Your task to perform on an android device: set the stopwatch Image 0: 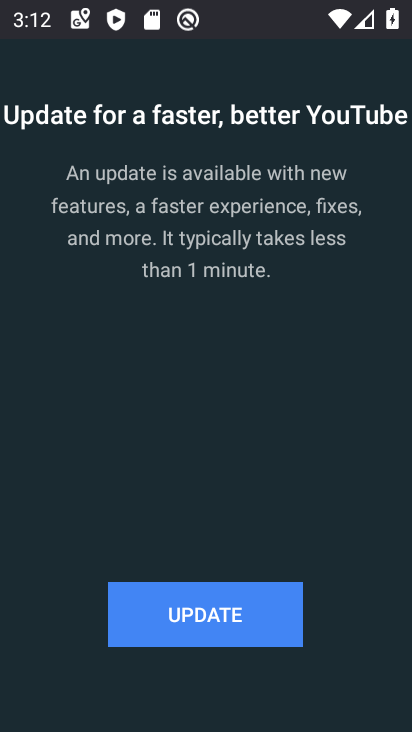
Step 0: press home button
Your task to perform on an android device: set the stopwatch Image 1: 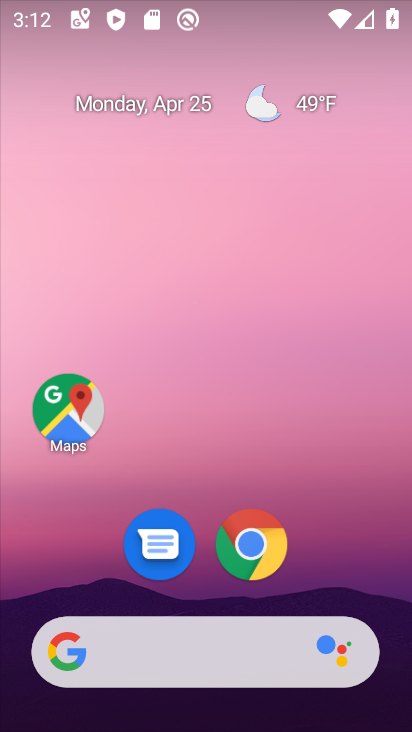
Step 1: drag from (206, 465) to (231, 22)
Your task to perform on an android device: set the stopwatch Image 2: 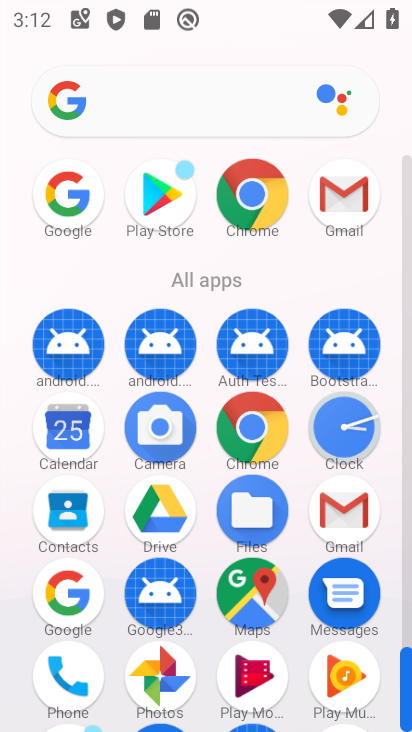
Step 2: click (344, 426)
Your task to perform on an android device: set the stopwatch Image 3: 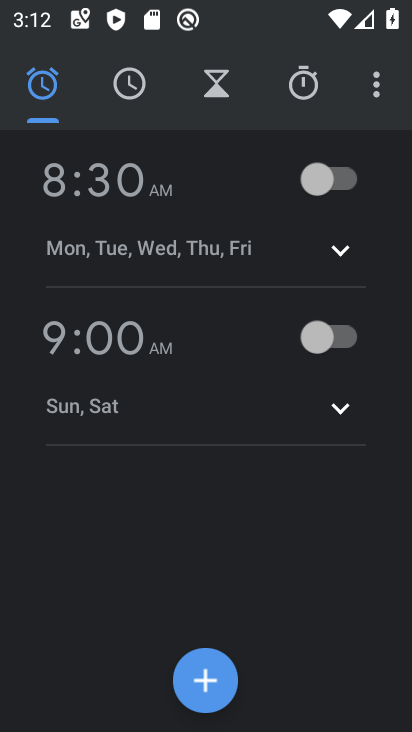
Step 3: click (308, 88)
Your task to perform on an android device: set the stopwatch Image 4: 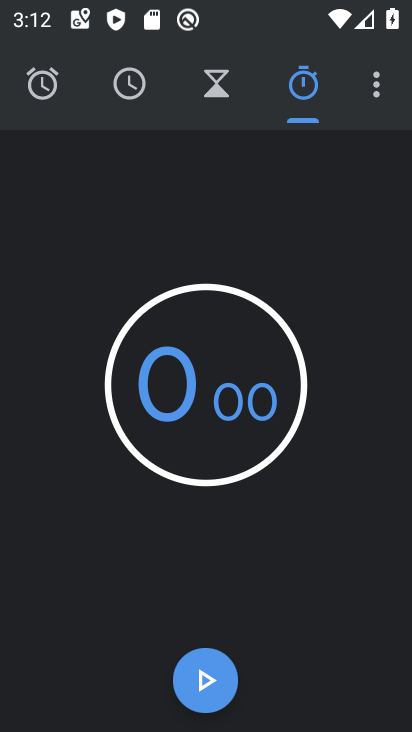
Step 4: click (204, 681)
Your task to perform on an android device: set the stopwatch Image 5: 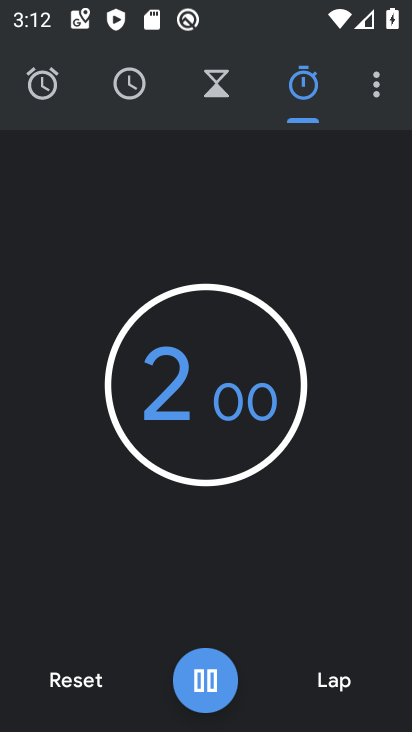
Step 5: click (204, 681)
Your task to perform on an android device: set the stopwatch Image 6: 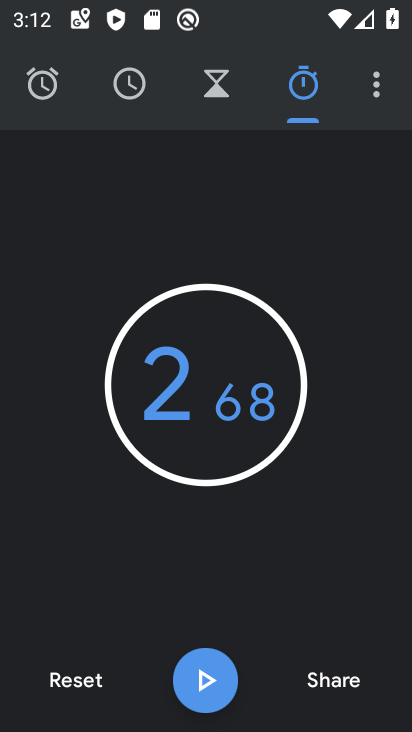
Step 6: task complete